Your task to perform on an android device: turn off javascript in the chrome app Image 0: 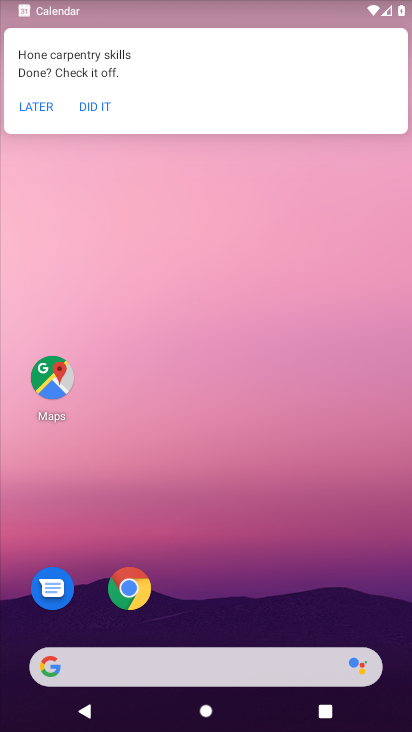
Step 0: click (126, 594)
Your task to perform on an android device: turn off javascript in the chrome app Image 1: 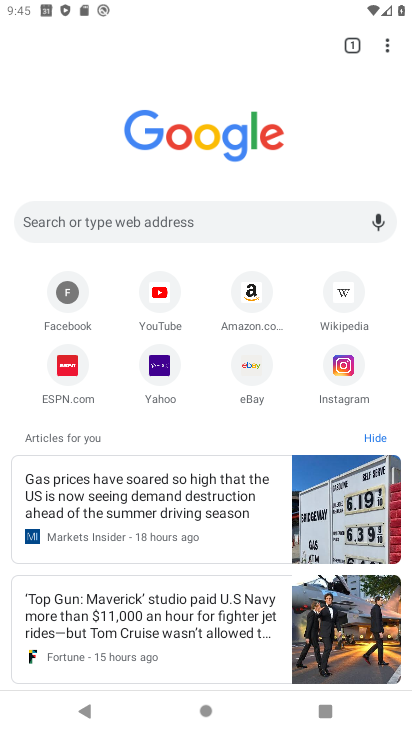
Step 1: click (390, 52)
Your task to perform on an android device: turn off javascript in the chrome app Image 2: 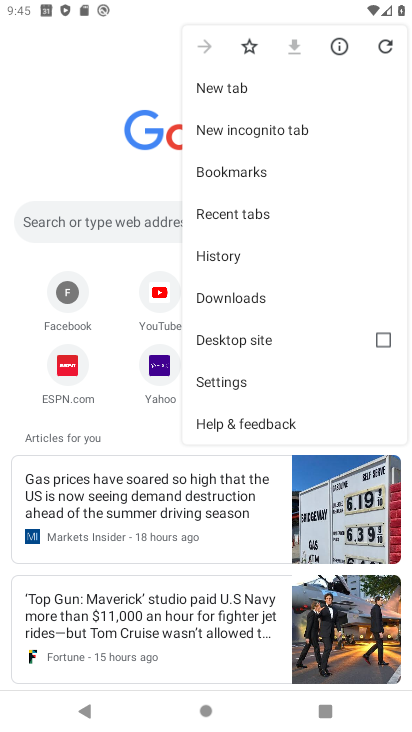
Step 2: click (230, 383)
Your task to perform on an android device: turn off javascript in the chrome app Image 3: 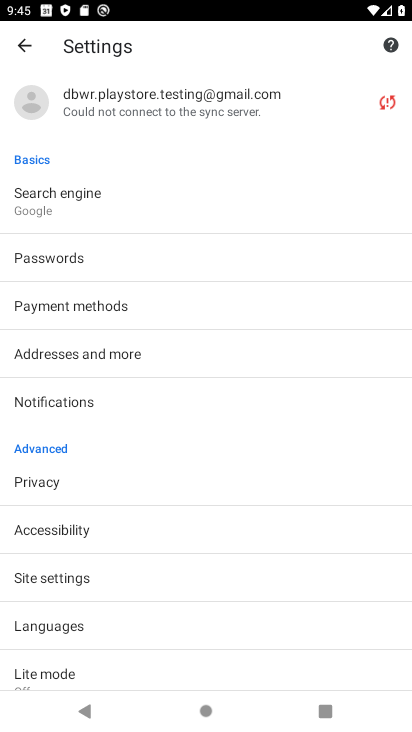
Step 3: click (57, 578)
Your task to perform on an android device: turn off javascript in the chrome app Image 4: 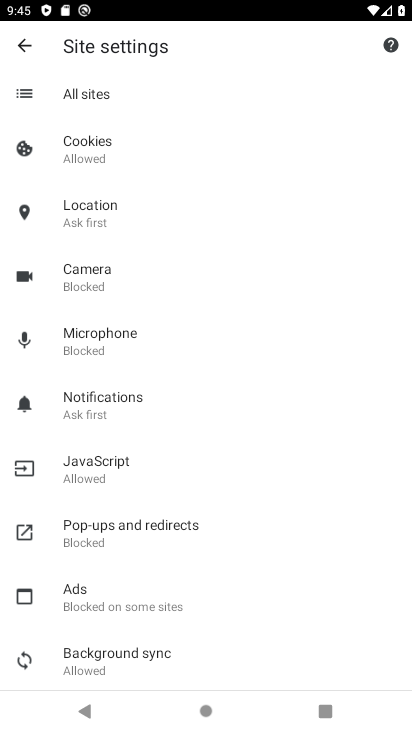
Step 4: click (111, 466)
Your task to perform on an android device: turn off javascript in the chrome app Image 5: 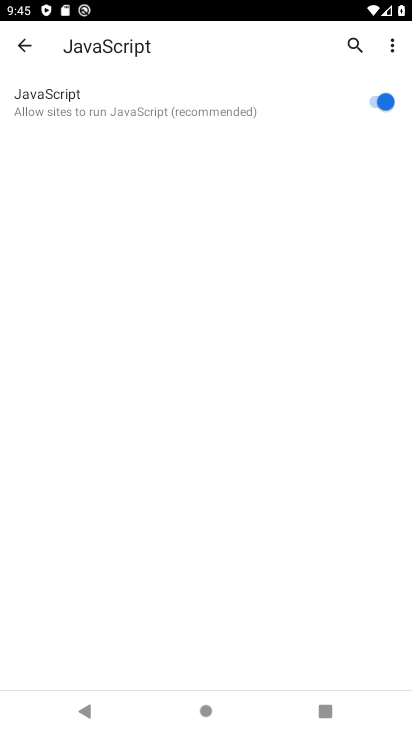
Step 5: click (373, 106)
Your task to perform on an android device: turn off javascript in the chrome app Image 6: 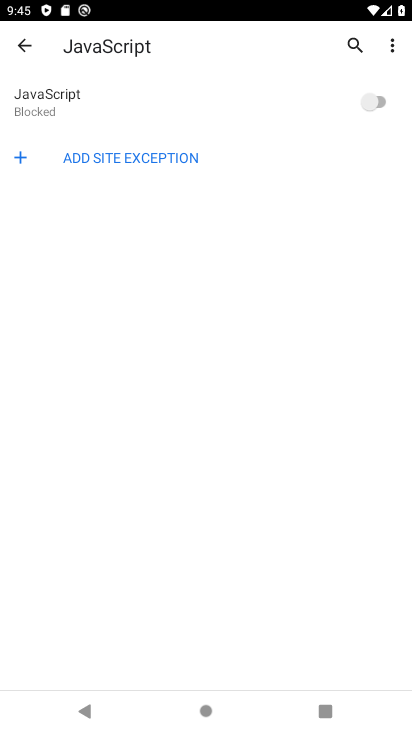
Step 6: task complete